Your task to perform on an android device: Go to Yahoo.com Image 0: 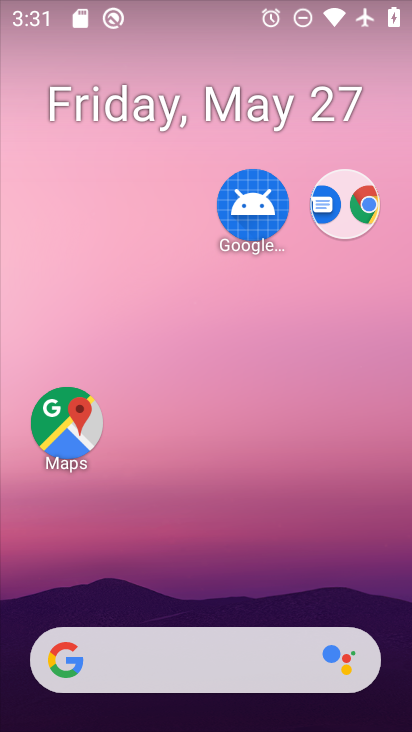
Step 0: drag from (249, 592) to (345, 95)
Your task to perform on an android device: Go to Yahoo.com Image 1: 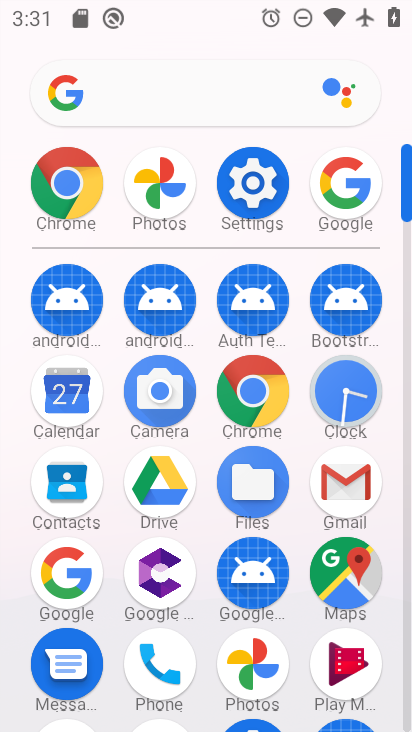
Step 1: click (83, 194)
Your task to perform on an android device: Go to Yahoo.com Image 2: 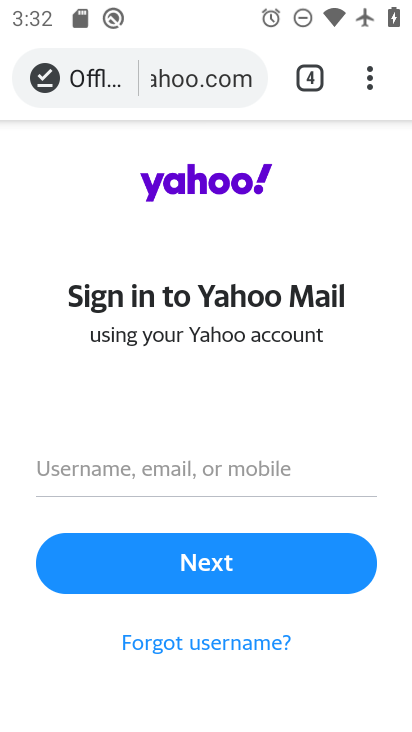
Step 2: task complete